Your task to perform on an android device: turn on the 12-hour format for clock Image 0: 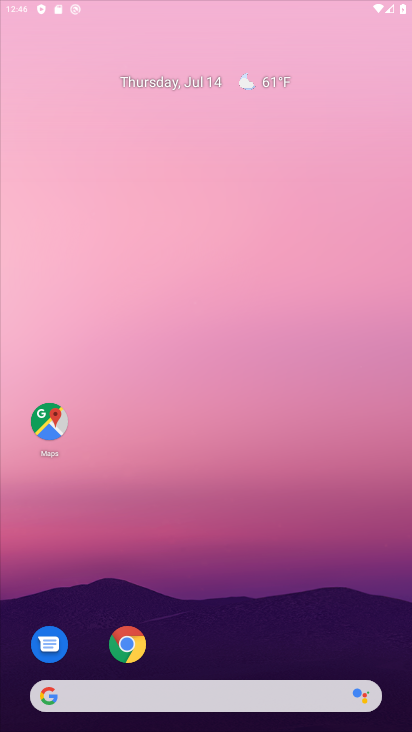
Step 0: click (199, 92)
Your task to perform on an android device: turn on the 12-hour format for clock Image 1: 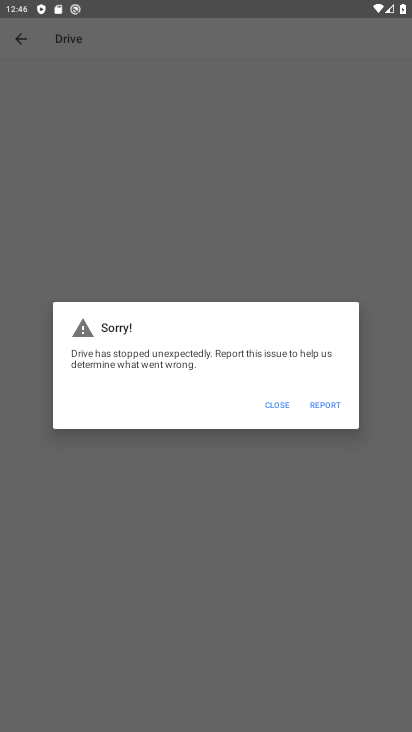
Step 1: click (283, 404)
Your task to perform on an android device: turn on the 12-hour format for clock Image 2: 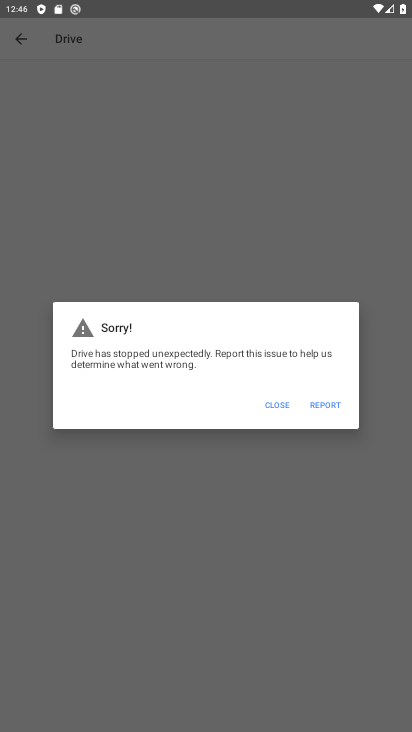
Step 2: click (280, 409)
Your task to perform on an android device: turn on the 12-hour format for clock Image 3: 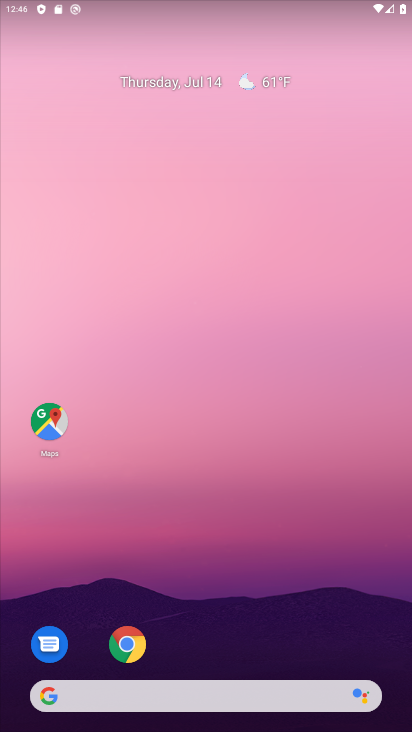
Step 3: click (277, 400)
Your task to perform on an android device: turn on the 12-hour format for clock Image 4: 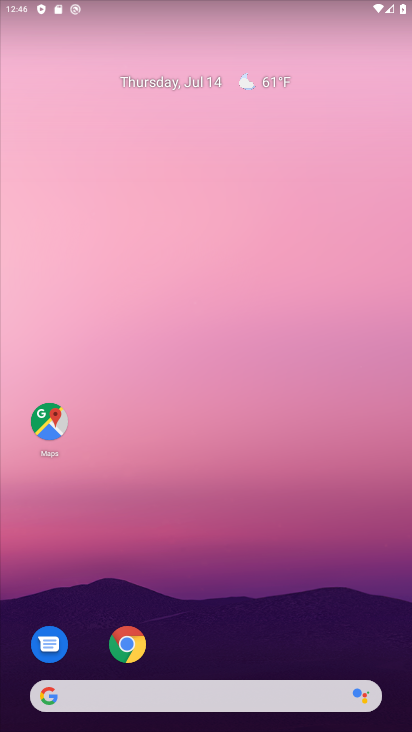
Step 4: click (275, 400)
Your task to perform on an android device: turn on the 12-hour format for clock Image 5: 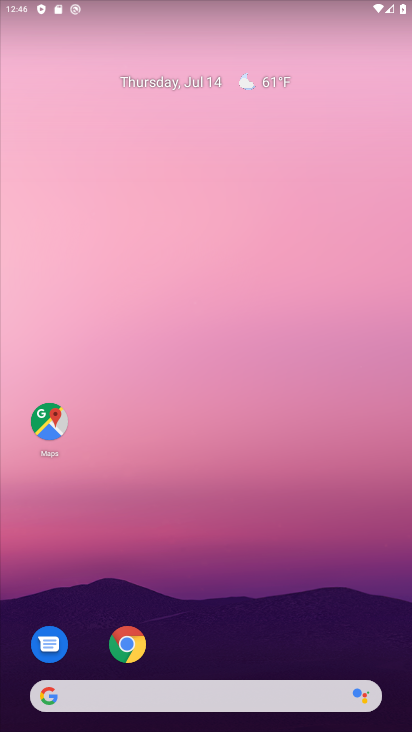
Step 5: drag from (258, 665) to (253, 433)
Your task to perform on an android device: turn on the 12-hour format for clock Image 6: 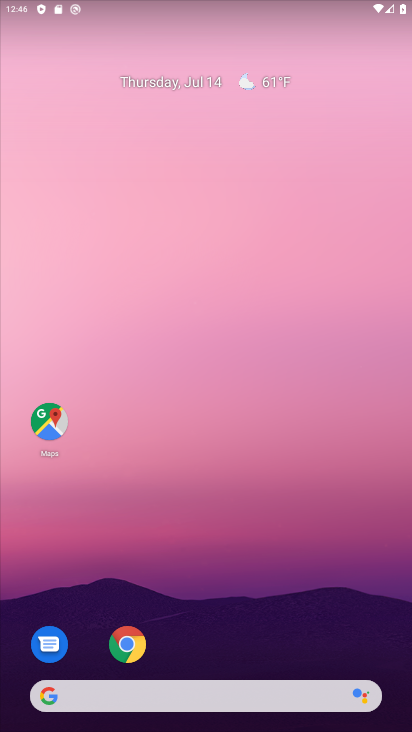
Step 6: drag from (188, 582) to (144, 37)
Your task to perform on an android device: turn on the 12-hour format for clock Image 7: 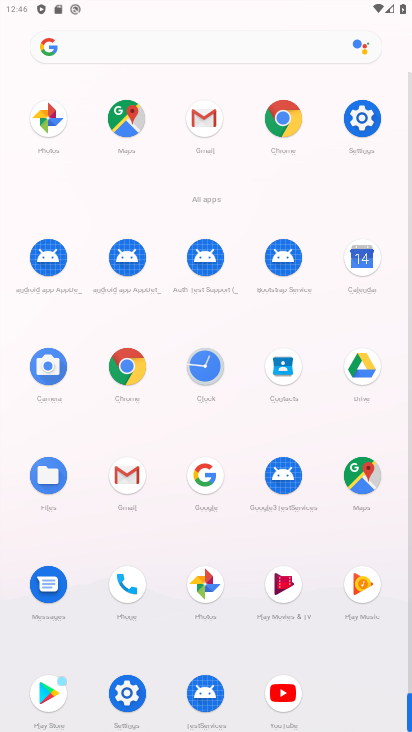
Step 7: drag from (196, 499) to (267, 81)
Your task to perform on an android device: turn on the 12-hour format for clock Image 8: 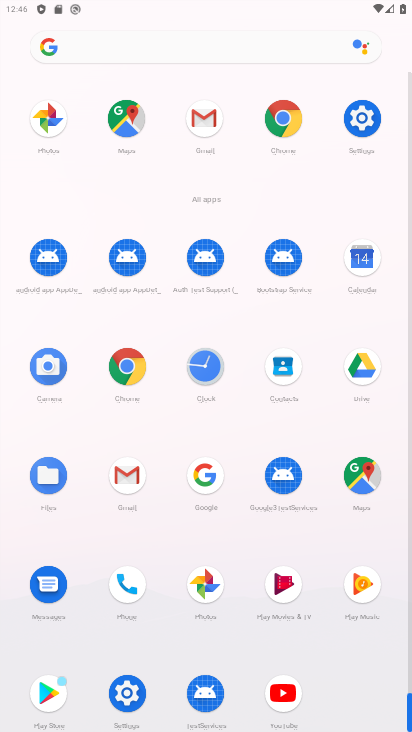
Step 8: drag from (250, 402) to (181, 28)
Your task to perform on an android device: turn on the 12-hour format for clock Image 9: 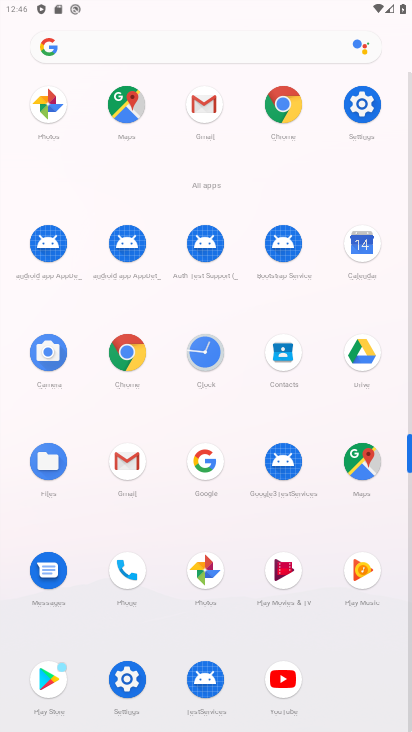
Step 9: drag from (238, 430) to (197, 38)
Your task to perform on an android device: turn on the 12-hour format for clock Image 10: 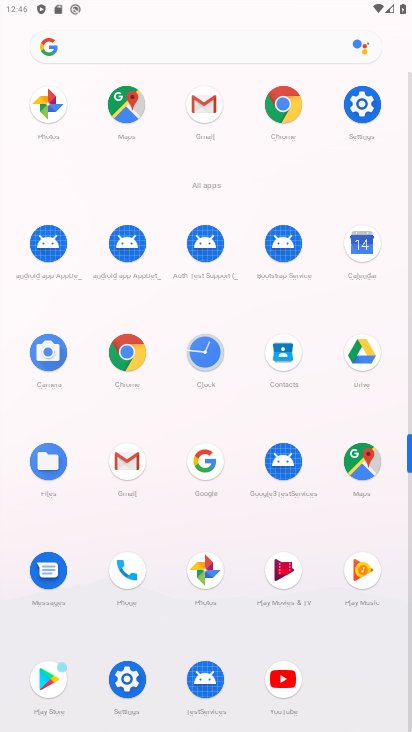
Step 10: click (204, 350)
Your task to perform on an android device: turn on the 12-hour format for clock Image 11: 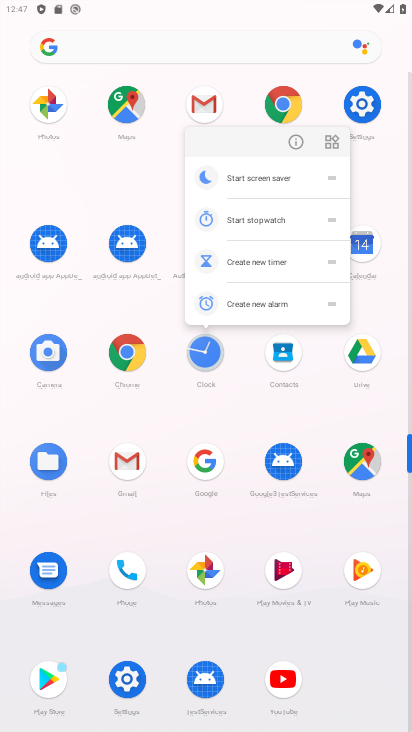
Step 11: click (211, 349)
Your task to perform on an android device: turn on the 12-hour format for clock Image 12: 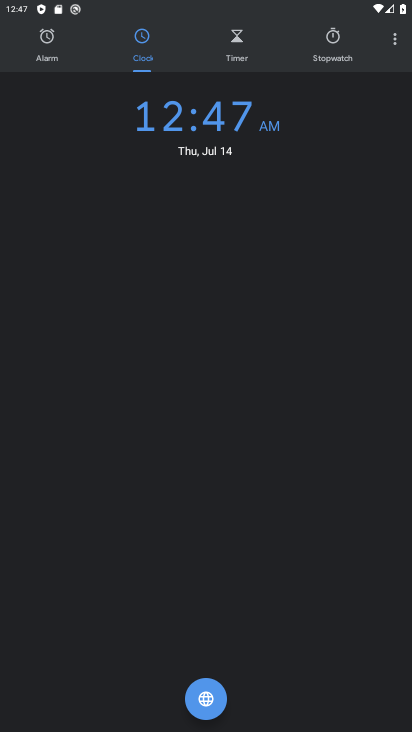
Step 12: click (400, 38)
Your task to perform on an android device: turn on the 12-hour format for clock Image 13: 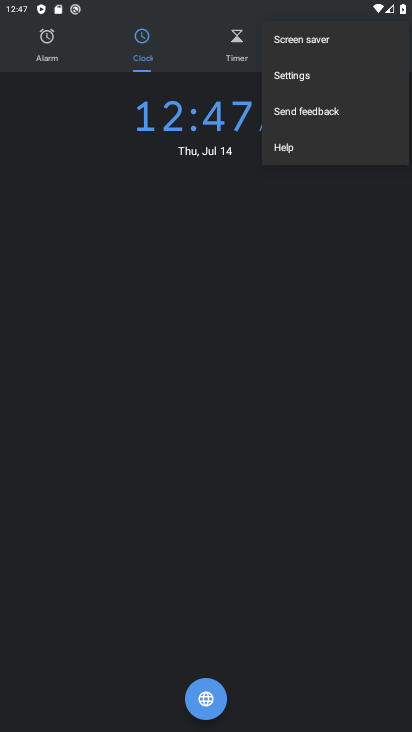
Step 13: click (287, 73)
Your task to perform on an android device: turn on the 12-hour format for clock Image 14: 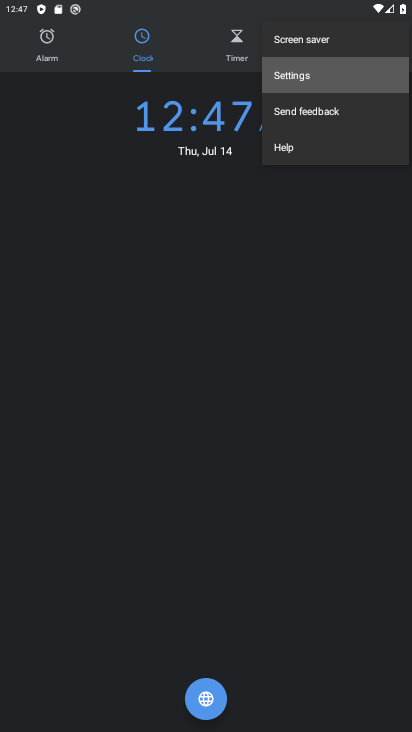
Step 14: click (289, 77)
Your task to perform on an android device: turn on the 12-hour format for clock Image 15: 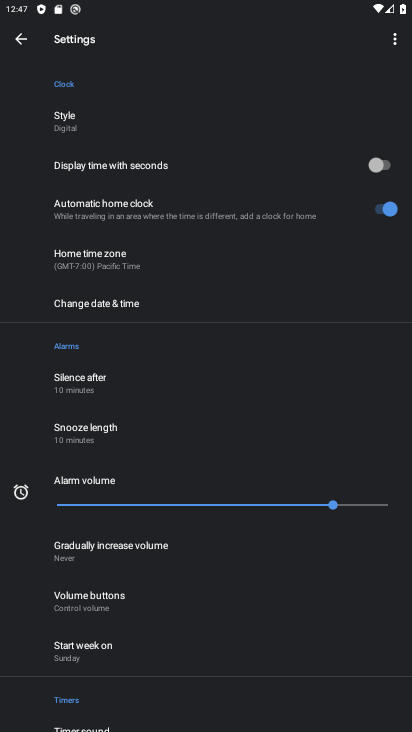
Step 15: click (98, 300)
Your task to perform on an android device: turn on the 12-hour format for clock Image 16: 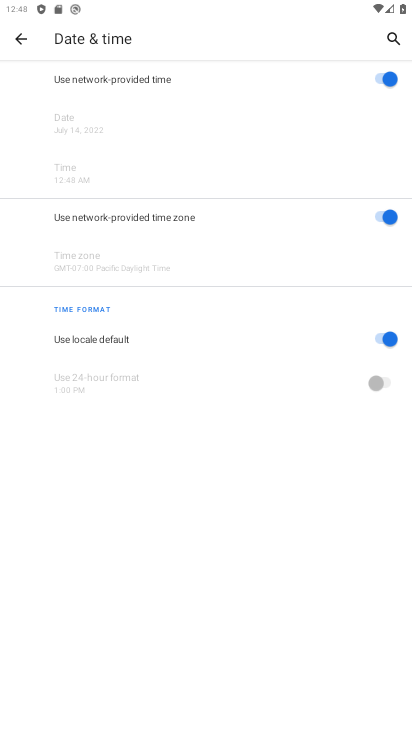
Step 16: click (387, 333)
Your task to perform on an android device: turn on the 12-hour format for clock Image 17: 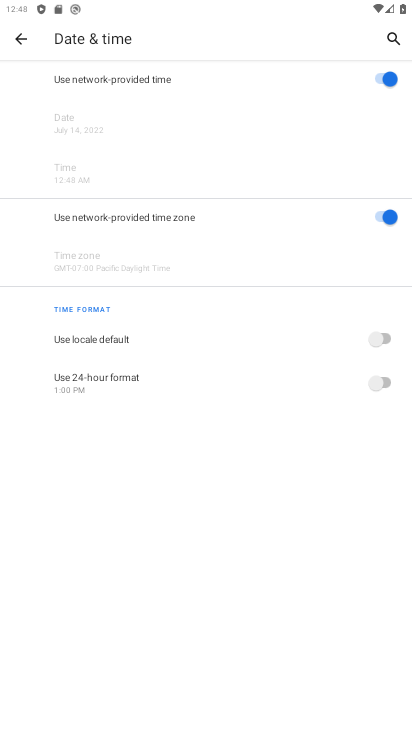
Step 17: click (381, 337)
Your task to perform on an android device: turn on the 12-hour format for clock Image 18: 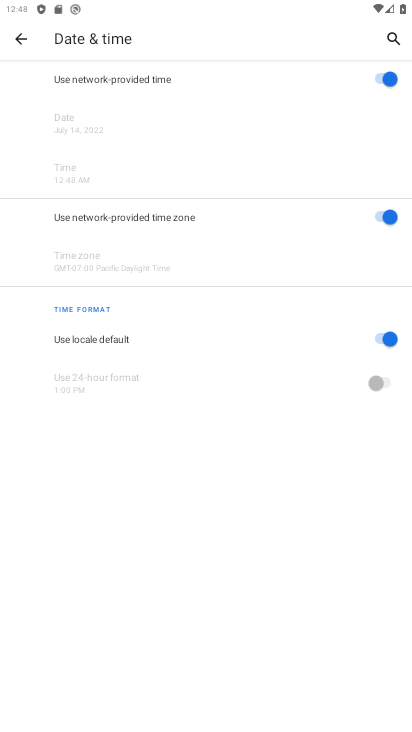
Step 18: task complete